Your task to perform on an android device: Show me popular games on the Play Store Image 0: 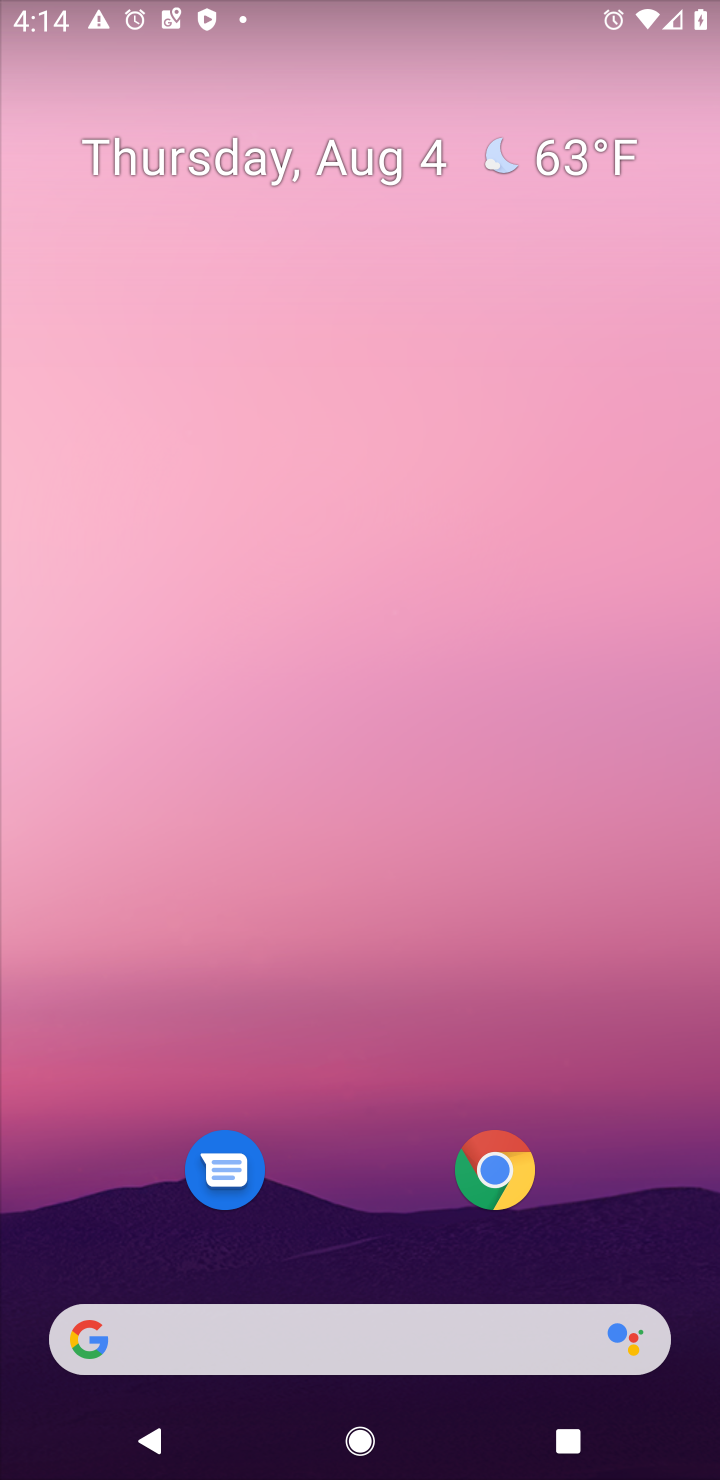
Step 0: drag from (626, 1204) to (501, 199)
Your task to perform on an android device: Show me popular games on the Play Store Image 1: 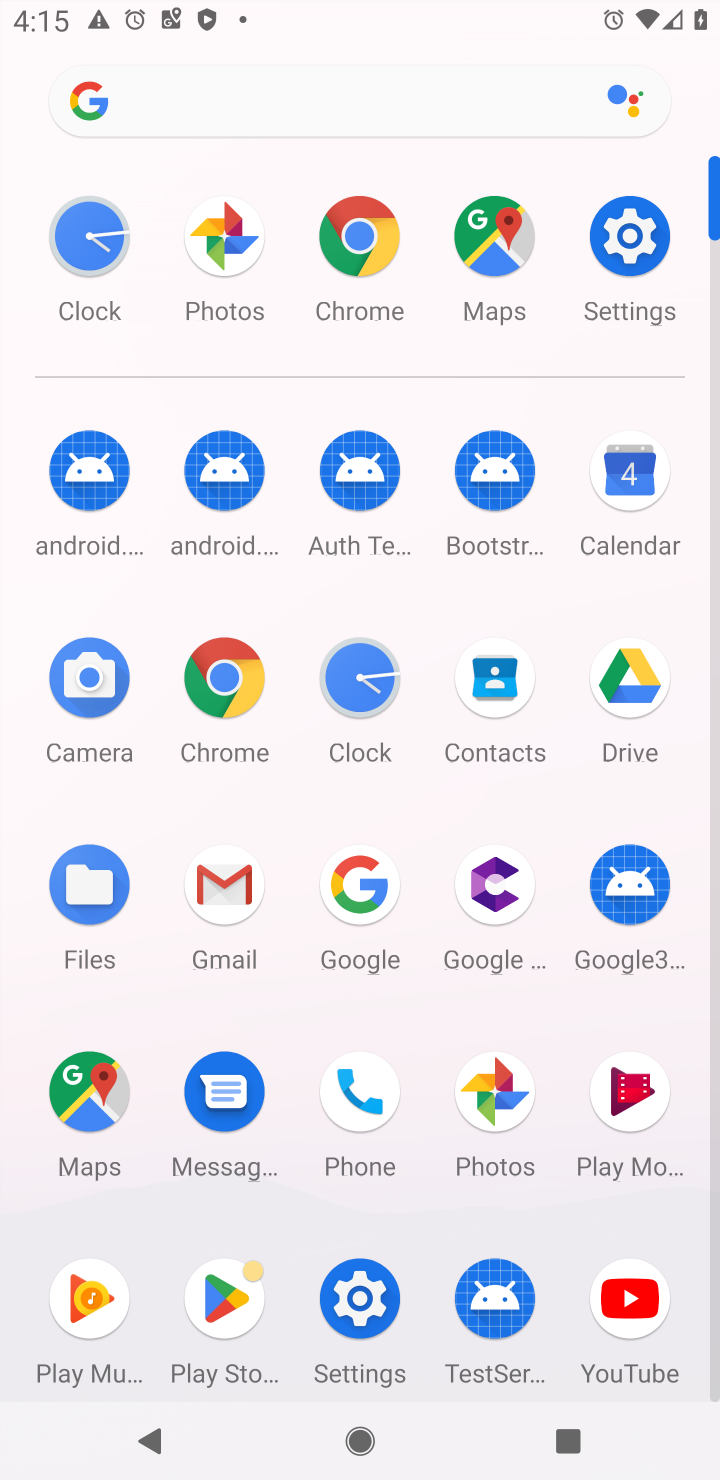
Step 1: click (225, 1298)
Your task to perform on an android device: Show me popular games on the Play Store Image 2: 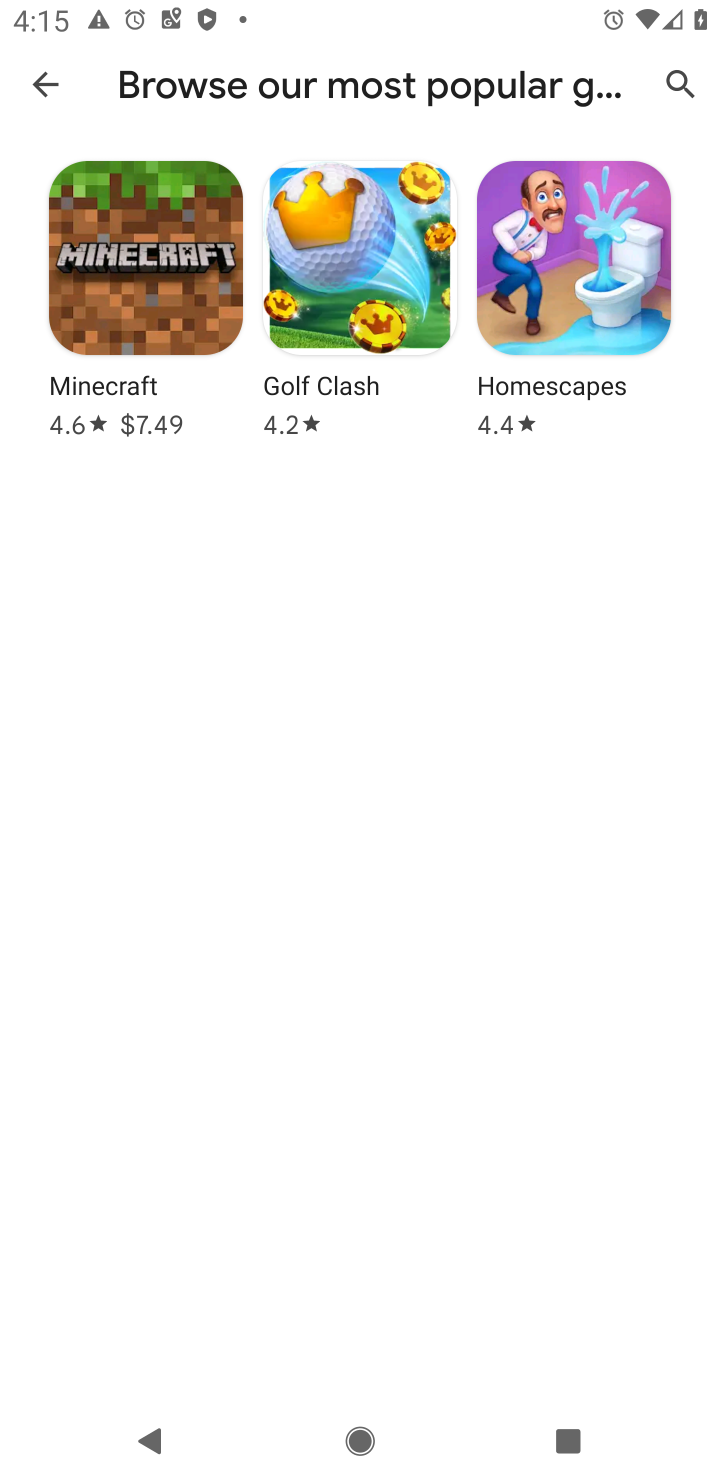
Step 2: task complete